Your task to perform on an android device: Open Google Chrome and click the shortcut for Amazon.com Image 0: 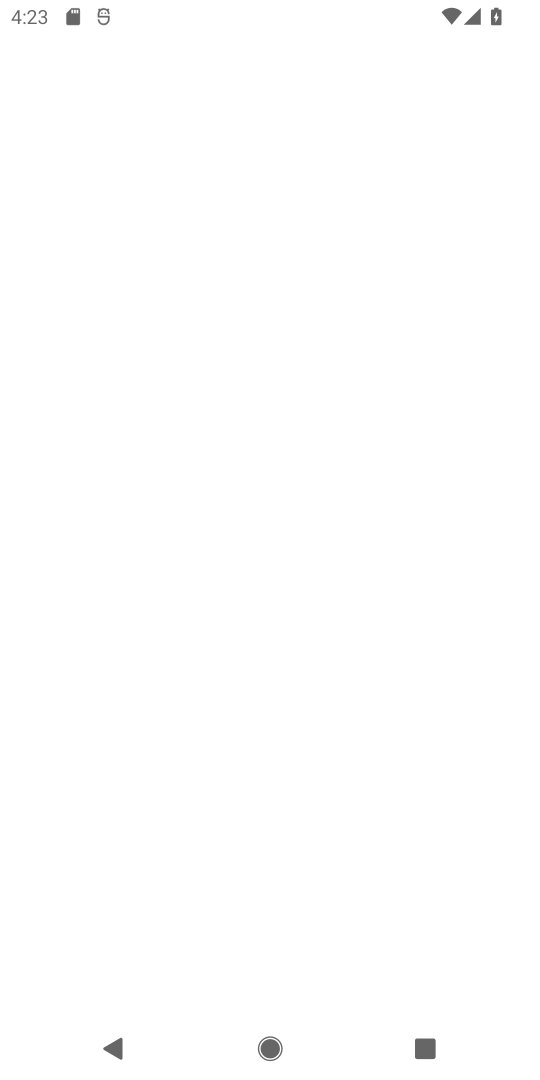
Step 0: press home button
Your task to perform on an android device: Open Google Chrome and click the shortcut for Amazon.com Image 1: 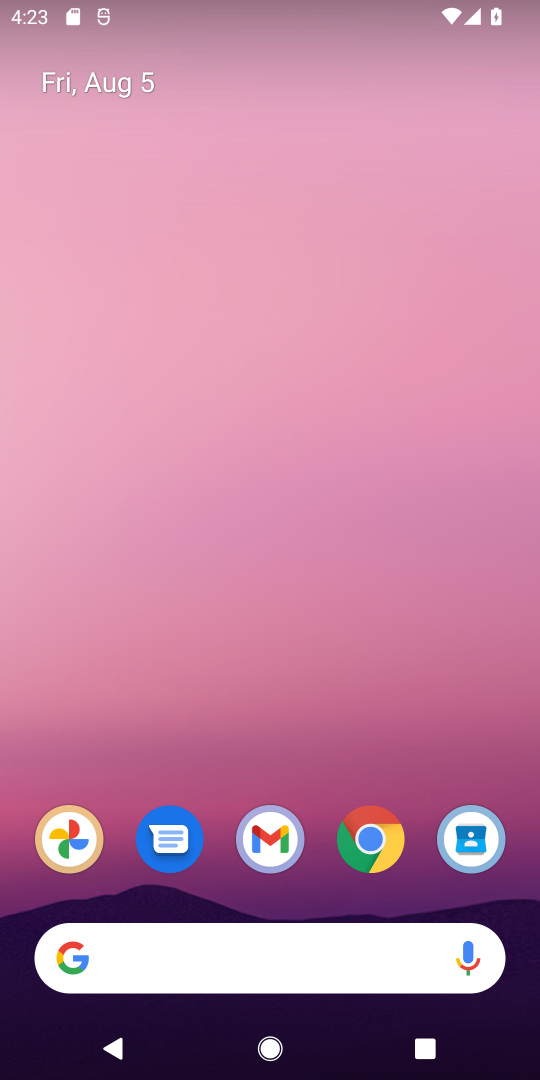
Step 1: click (358, 837)
Your task to perform on an android device: Open Google Chrome and click the shortcut for Amazon.com Image 2: 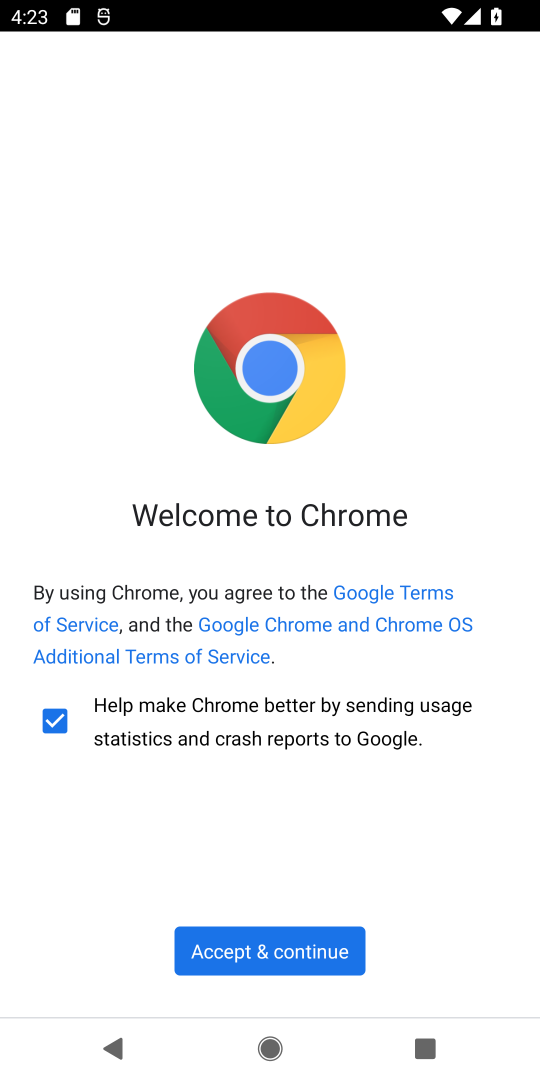
Step 2: click (306, 951)
Your task to perform on an android device: Open Google Chrome and click the shortcut for Amazon.com Image 3: 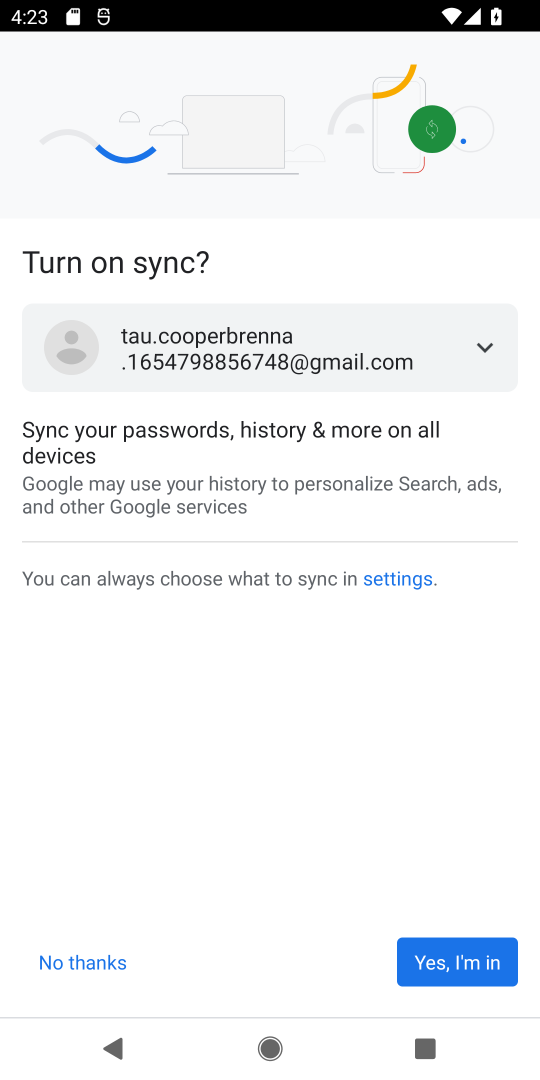
Step 3: click (466, 940)
Your task to perform on an android device: Open Google Chrome and click the shortcut for Amazon.com Image 4: 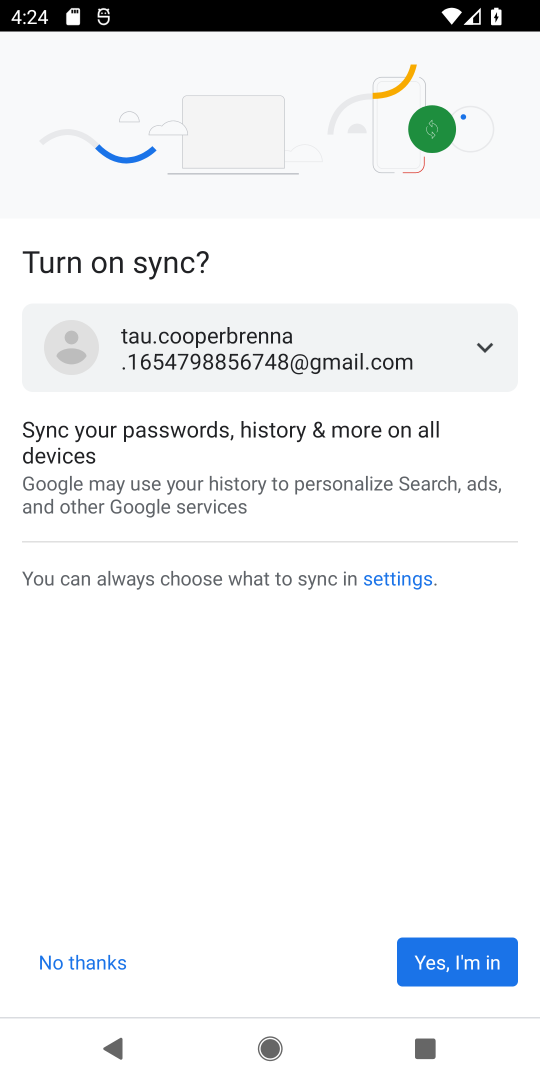
Step 4: click (448, 968)
Your task to perform on an android device: Open Google Chrome and click the shortcut for Amazon.com Image 5: 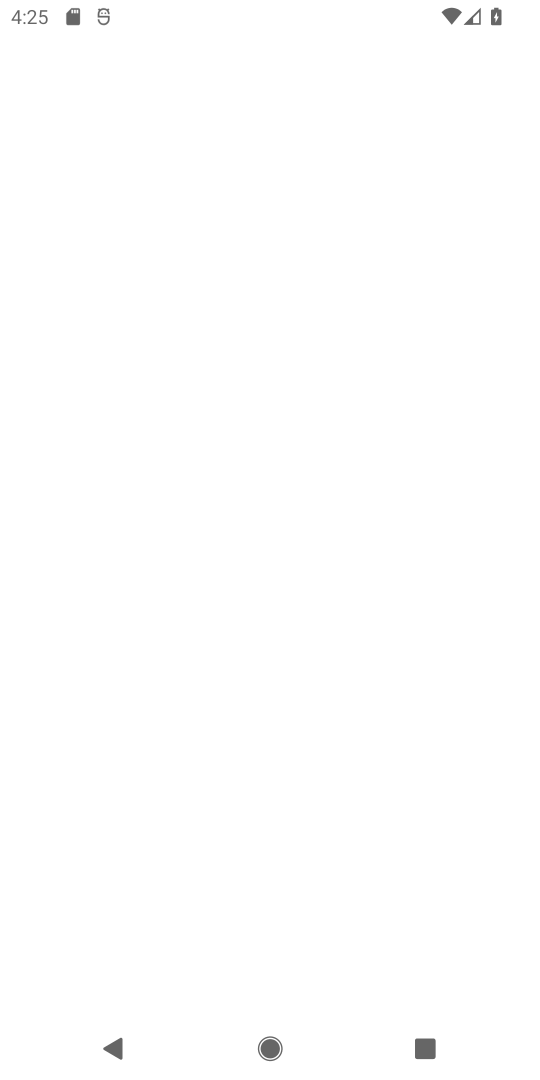
Step 5: task complete